Your task to perform on an android device: Show me recent news Image 0: 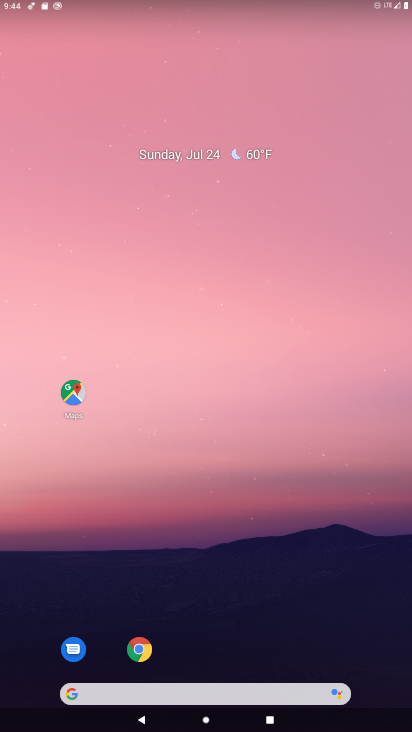
Step 0: drag from (300, 568) to (294, 1)
Your task to perform on an android device: Show me recent news Image 1: 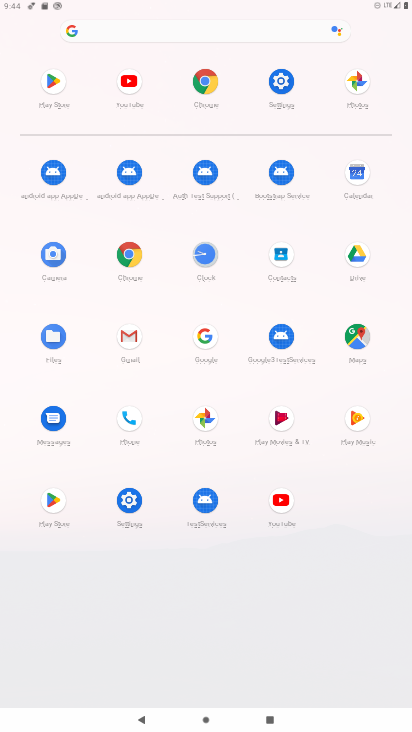
Step 1: click (215, 78)
Your task to perform on an android device: Show me recent news Image 2: 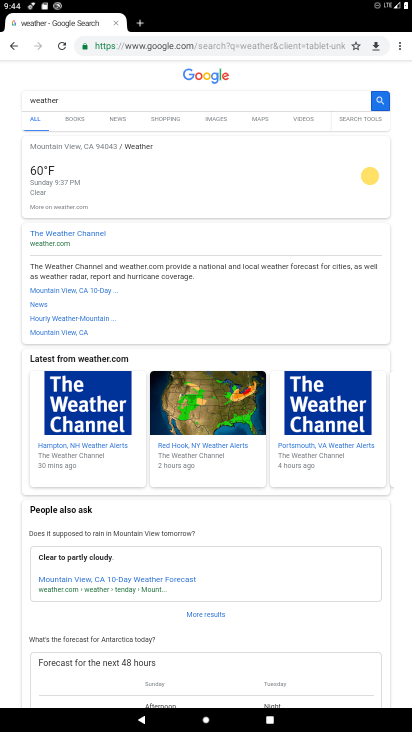
Step 2: click (265, 44)
Your task to perform on an android device: Show me recent news Image 3: 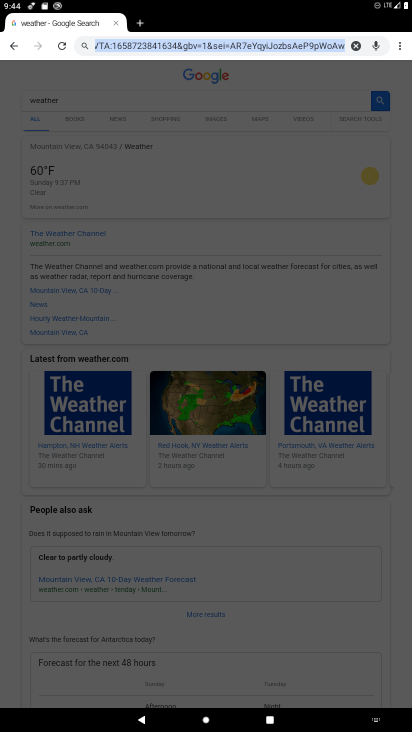
Step 3: type "news"
Your task to perform on an android device: Show me recent news Image 4: 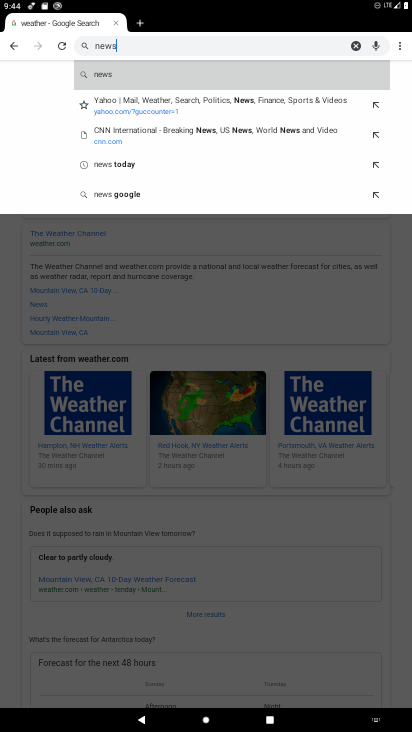
Step 4: click (119, 73)
Your task to perform on an android device: Show me recent news Image 5: 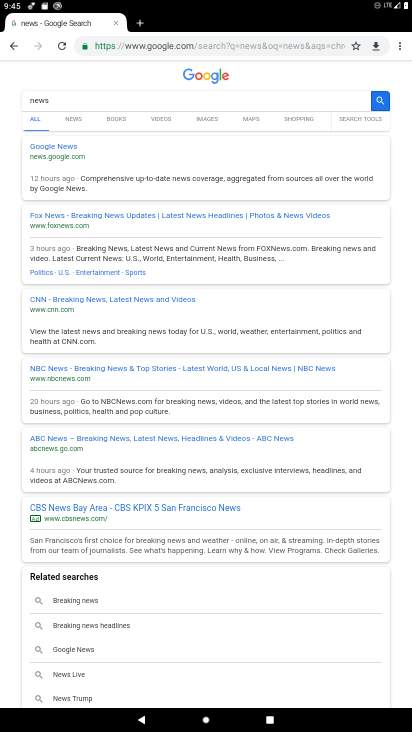
Step 5: click (49, 139)
Your task to perform on an android device: Show me recent news Image 6: 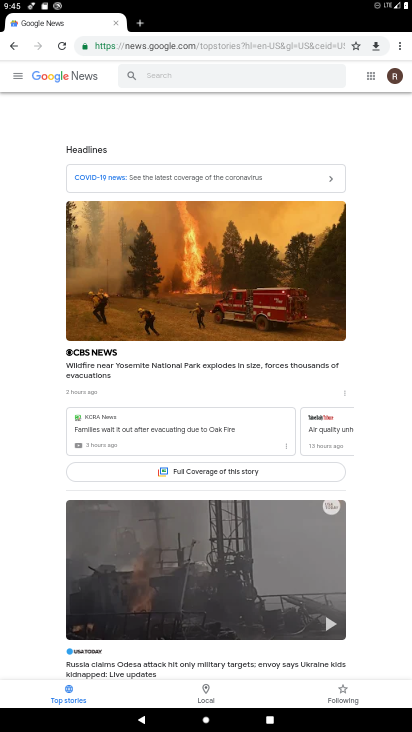
Step 6: task complete